Your task to perform on an android device: Open settings on Google Maps Image 0: 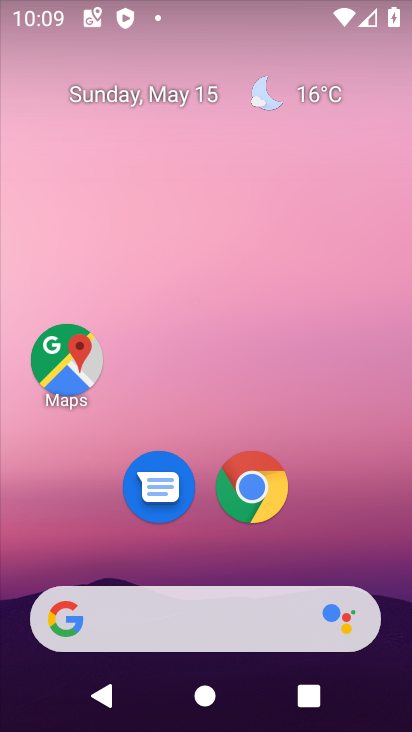
Step 0: click (69, 361)
Your task to perform on an android device: Open settings on Google Maps Image 1: 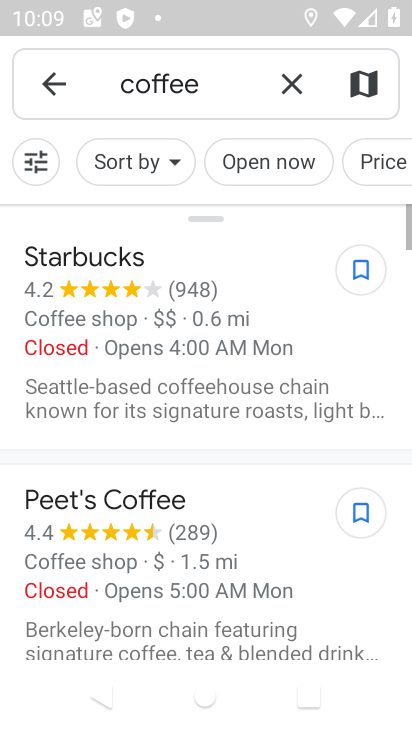
Step 1: click (291, 83)
Your task to perform on an android device: Open settings on Google Maps Image 2: 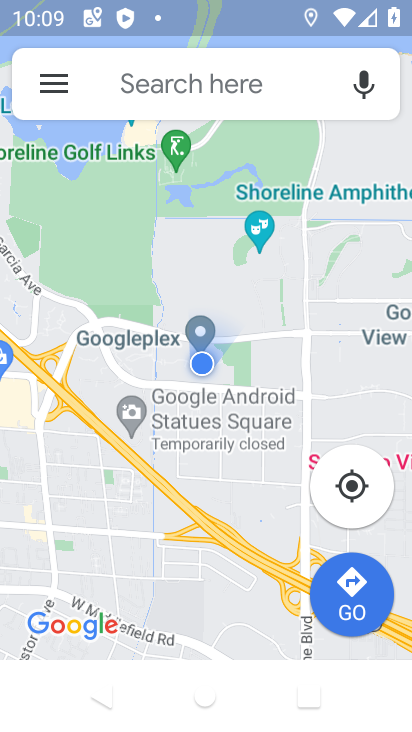
Step 2: click (50, 93)
Your task to perform on an android device: Open settings on Google Maps Image 3: 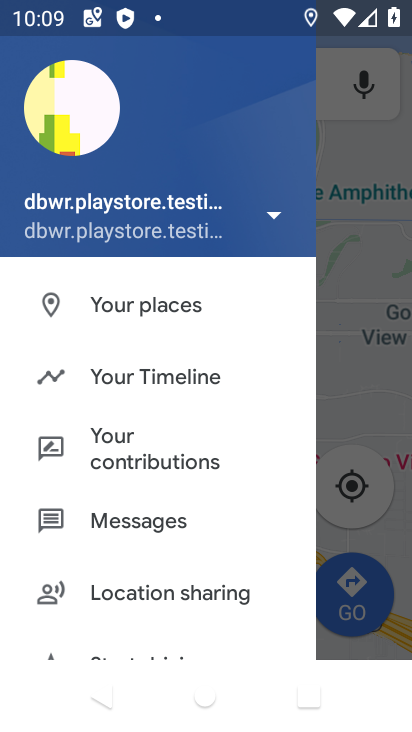
Step 3: drag from (215, 527) to (250, 139)
Your task to perform on an android device: Open settings on Google Maps Image 4: 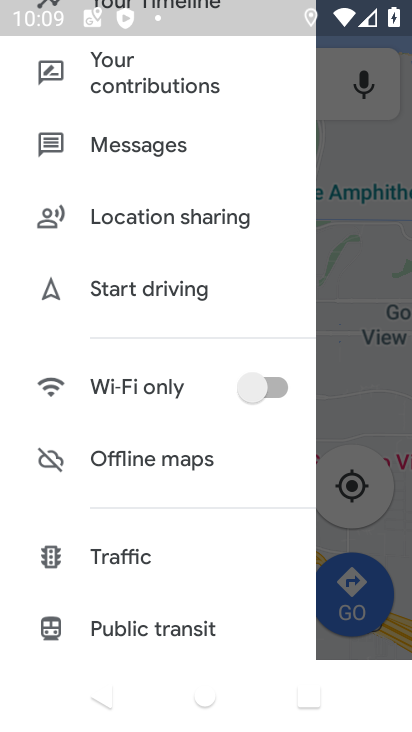
Step 4: drag from (198, 559) to (238, 149)
Your task to perform on an android device: Open settings on Google Maps Image 5: 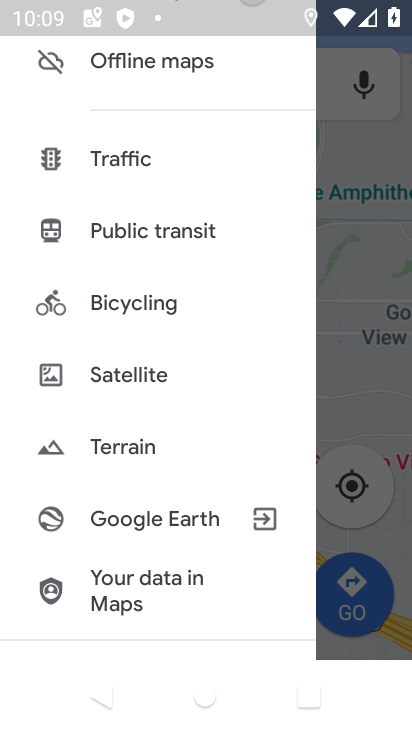
Step 5: drag from (249, 547) to (233, 125)
Your task to perform on an android device: Open settings on Google Maps Image 6: 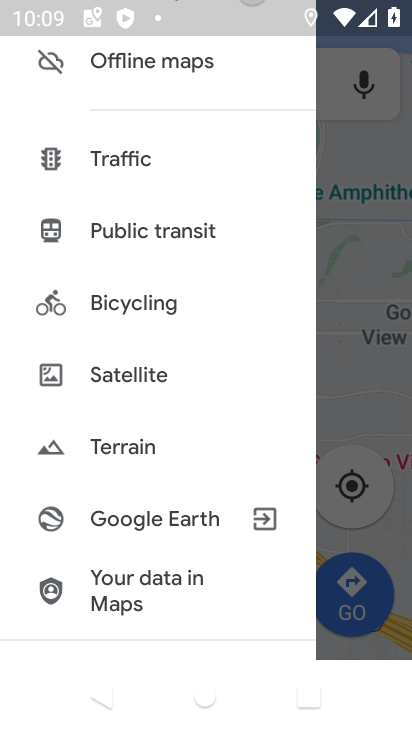
Step 6: drag from (226, 585) to (229, 126)
Your task to perform on an android device: Open settings on Google Maps Image 7: 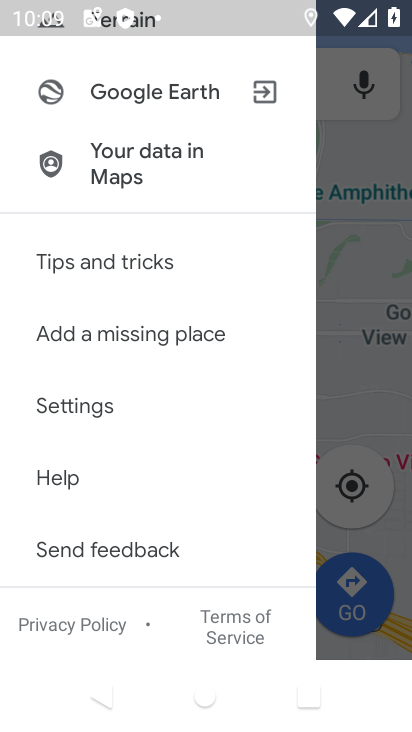
Step 7: click (68, 404)
Your task to perform on an android device: Open settings on Google Maps Image 8: 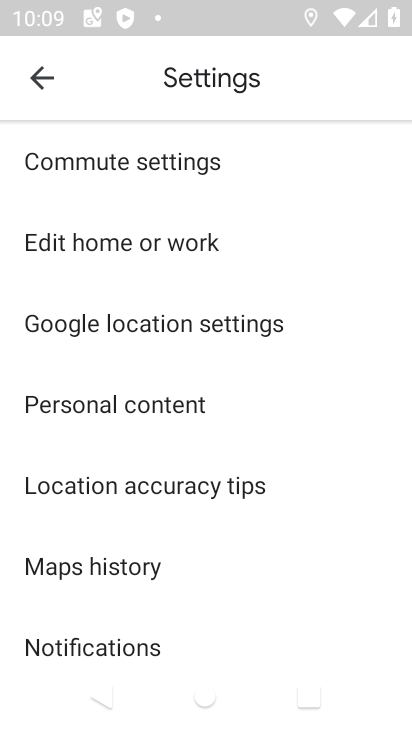
Step 8: task complete